Your task to perform on an android device: install app "Upside-Cash back on gas & food" Image 0: 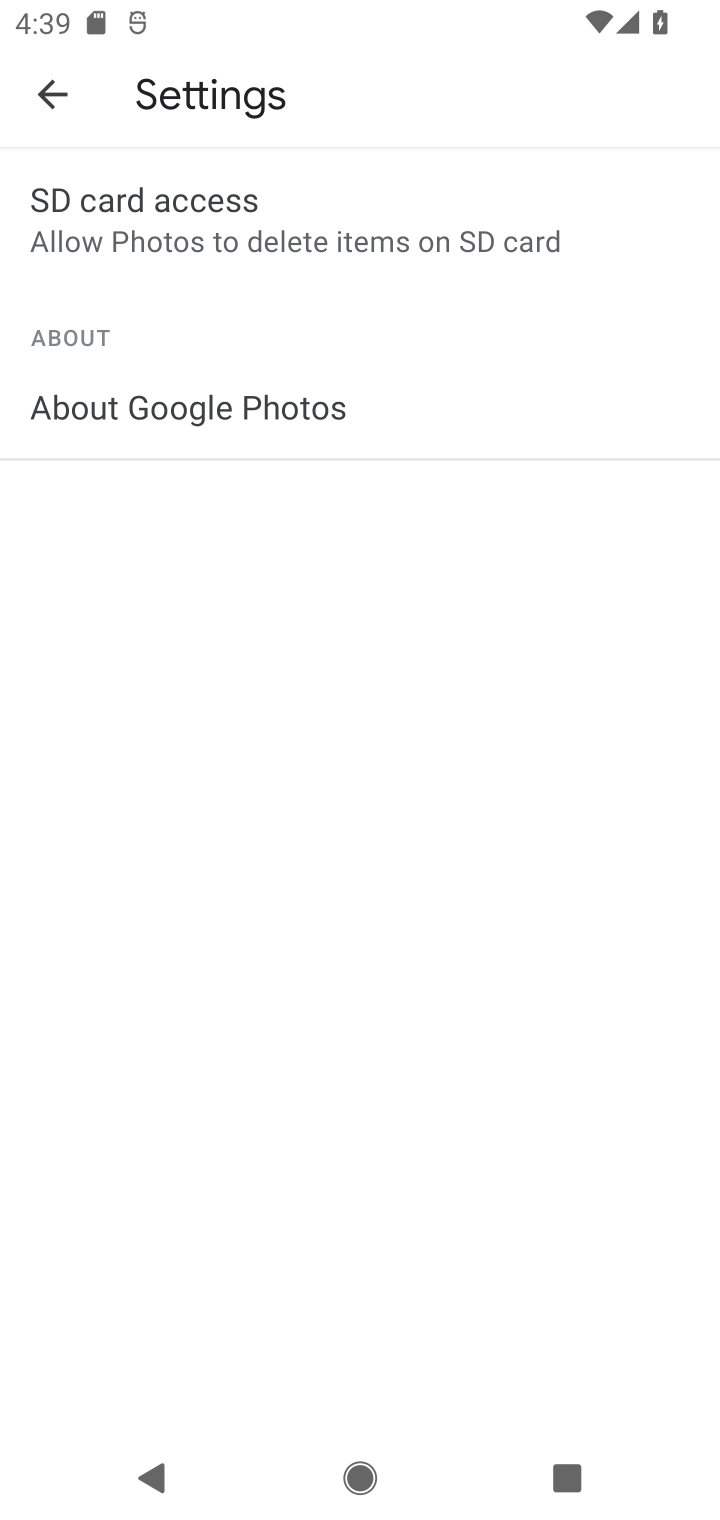
Step 0: press home button
Your task to perform on an android device: install app "Upside-Cash back on gas & food" Image 1: 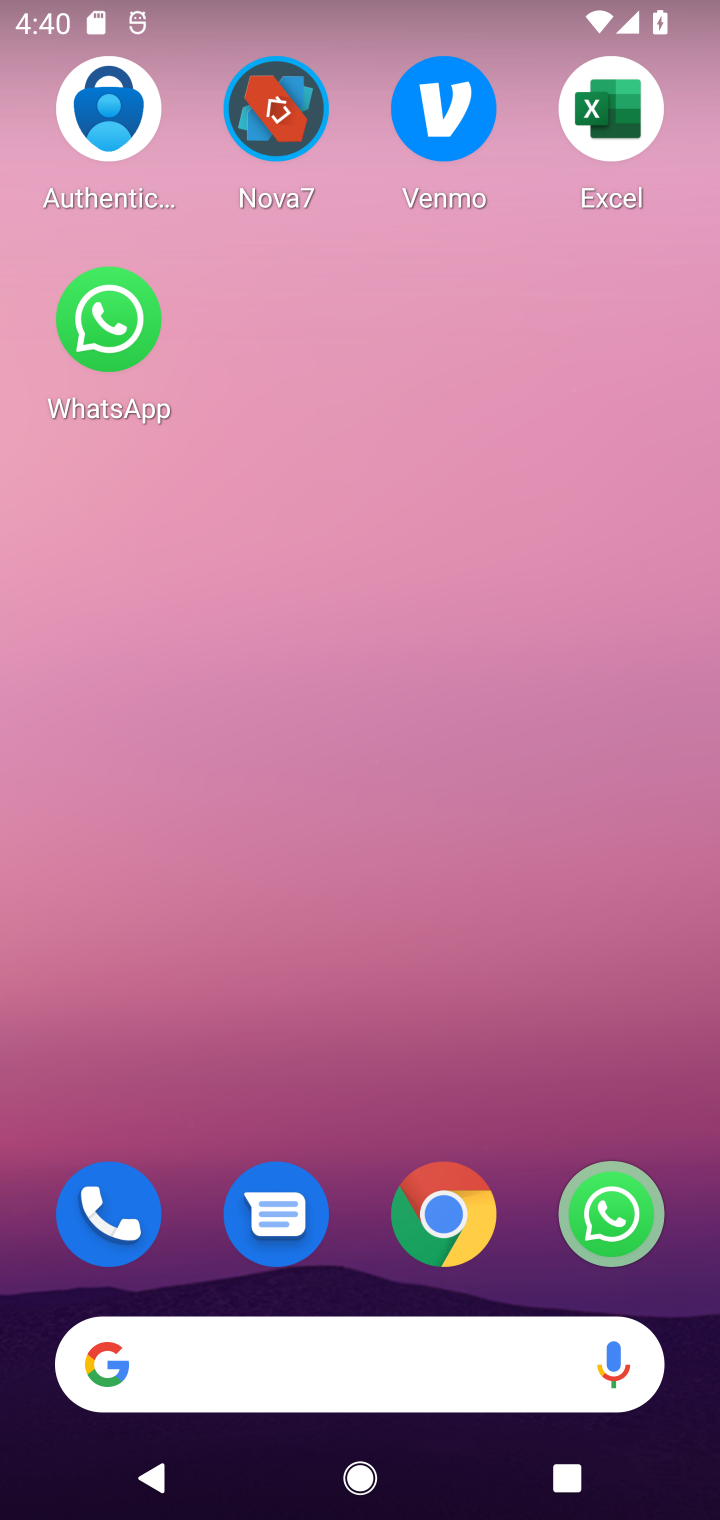
Step 1: drag from (356, 1174) to (479, 122)
Your task to perform on an android device: install app "Upside-Cash back on gas & food" Image 2: 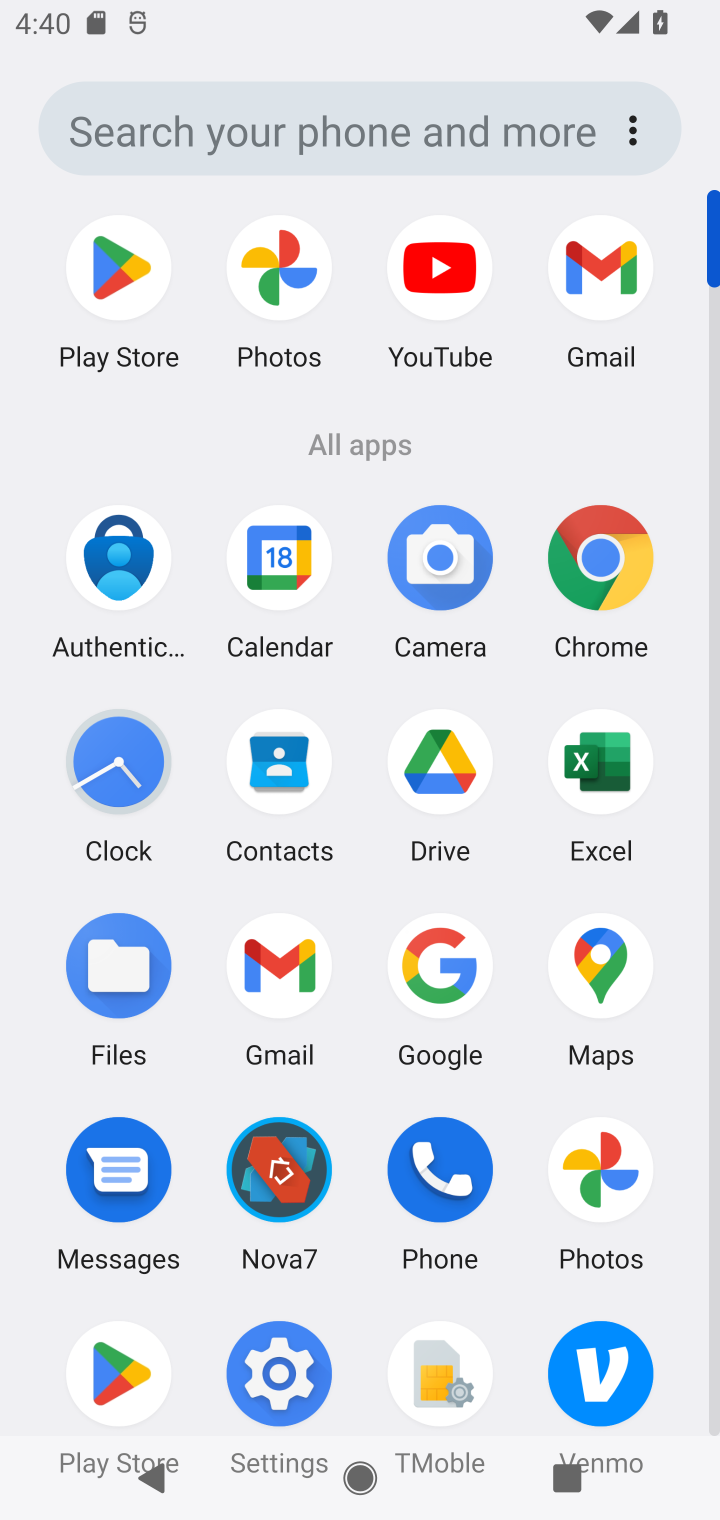
Step 2: click (107, 1364)
Your task to perform on an android device: install app "Upside-Cash back on gas & food" Image 3: 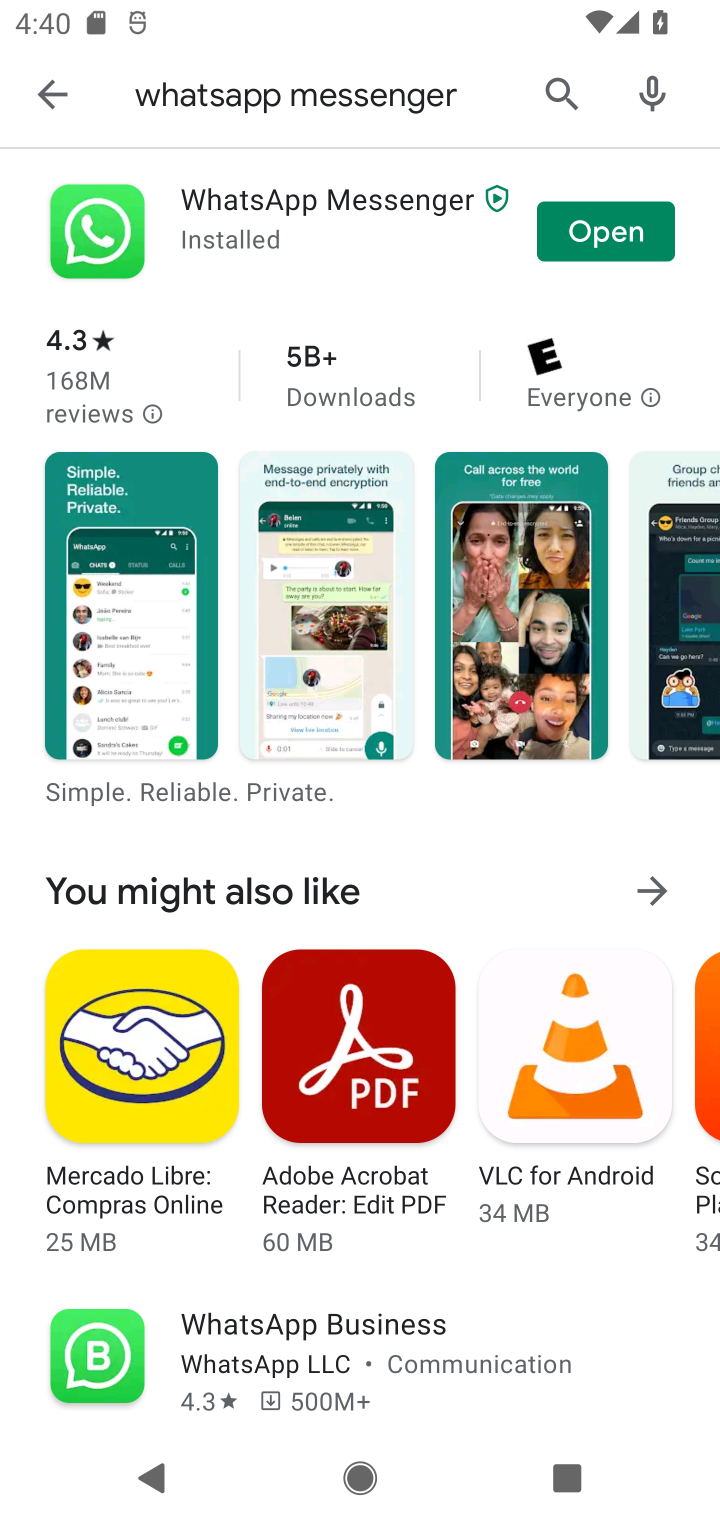
Step 3: click (265, 103)
Your task to perform on an android device: install app "Upside-Cash back on gas & food" Image 4: 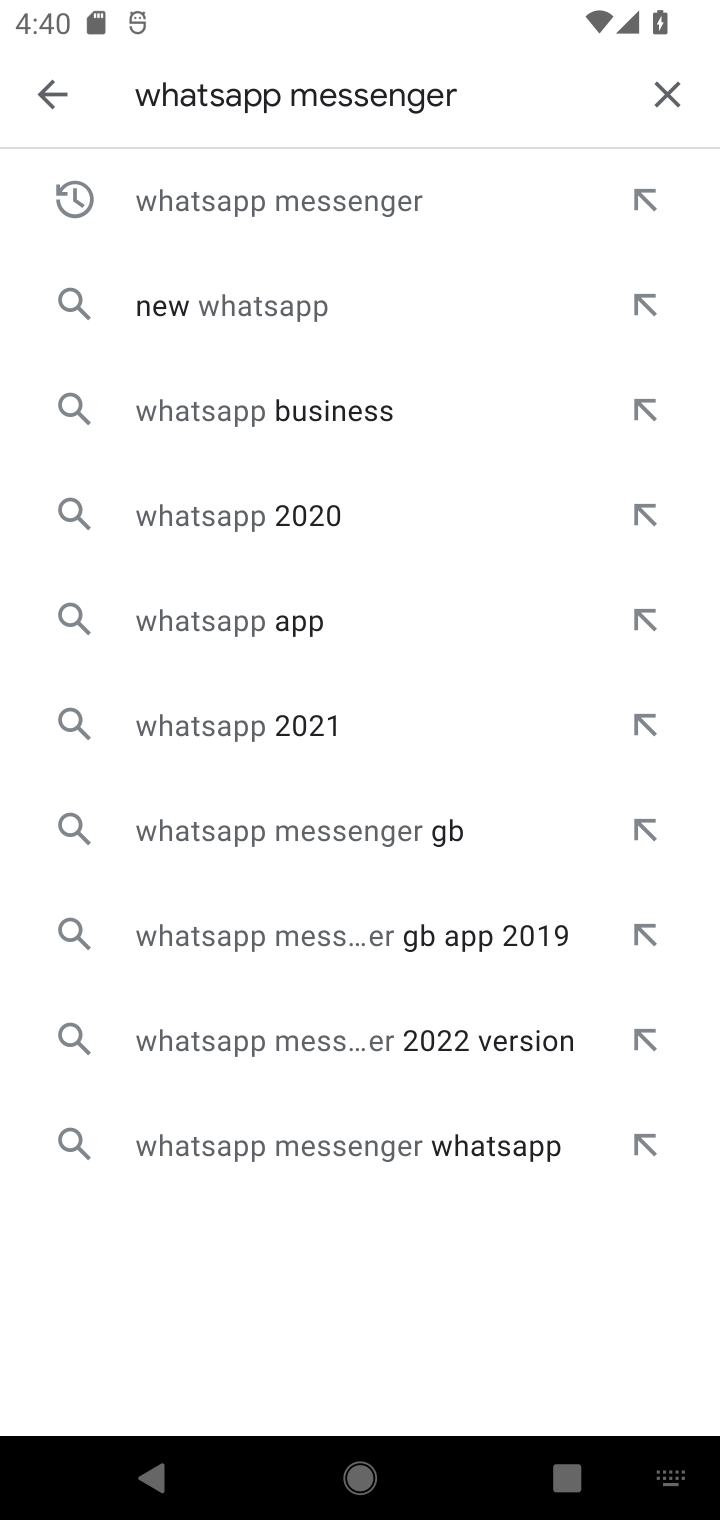
Step 4: click (665, 85)
Your task to perform on an android device: install app "Upside-Cash back on gas & food" Image 5: 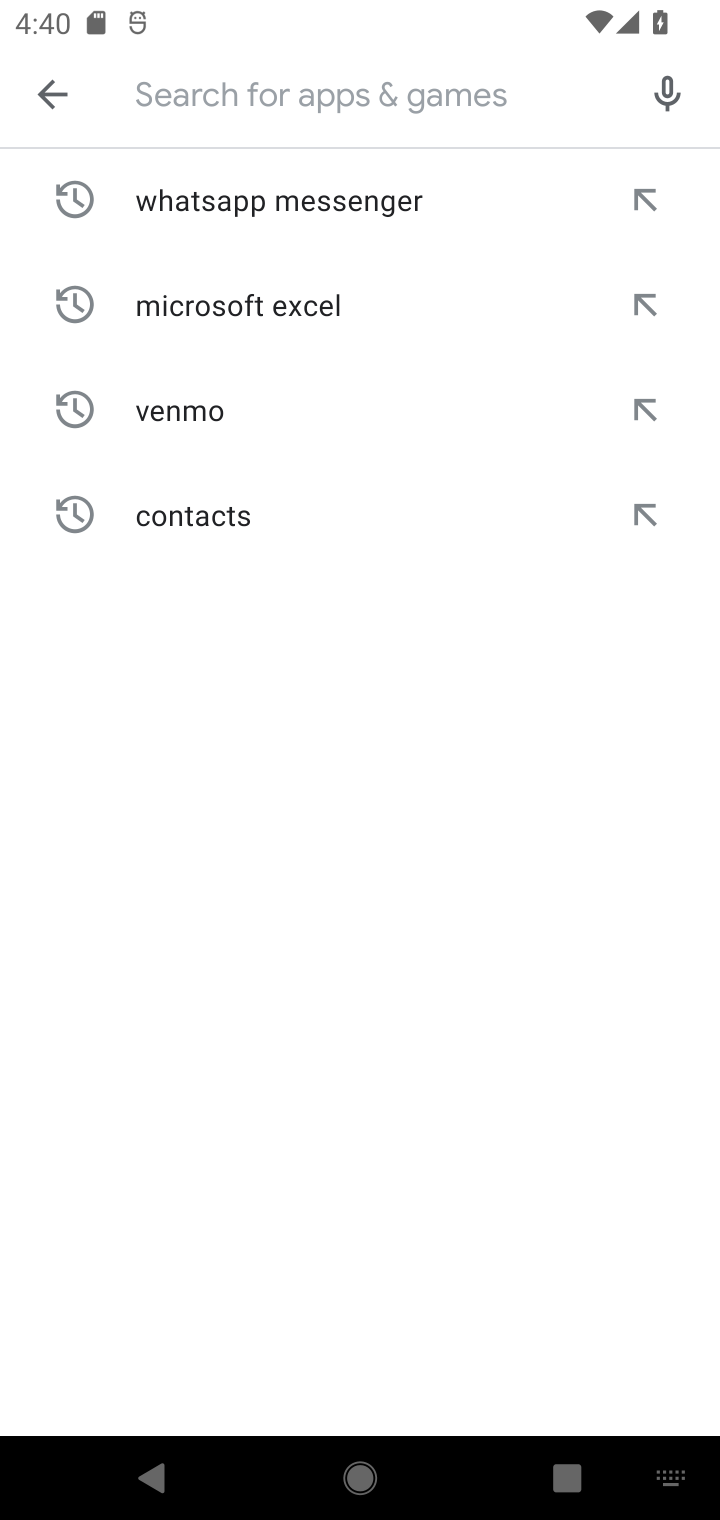
Step 5: type "upside"
Your task to perform on an android device: install app "Upside-Cash back on gas & food" Image 6: 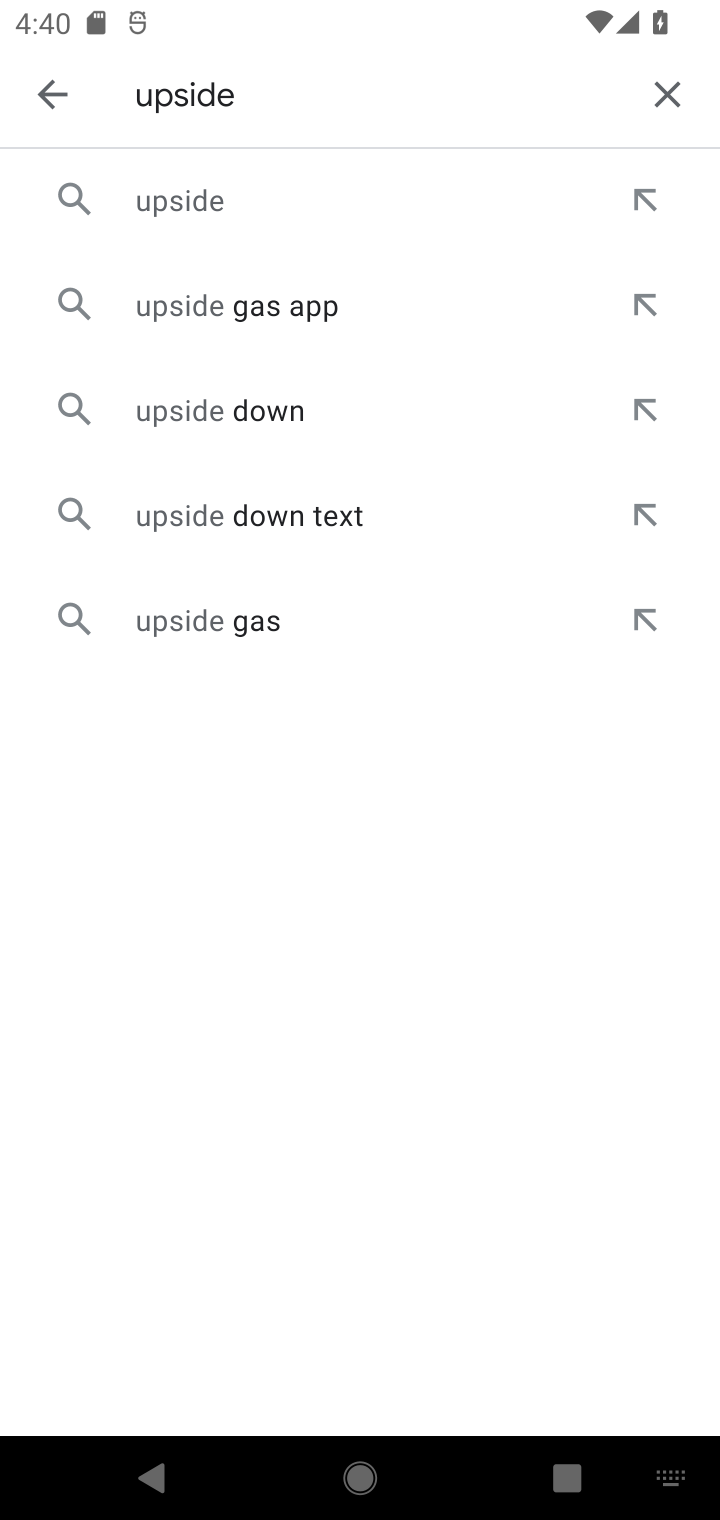
Step 6: click (251, 206)
Your task to perform on an android device: install app "Upside-Cash back on gas & food" Image 7: 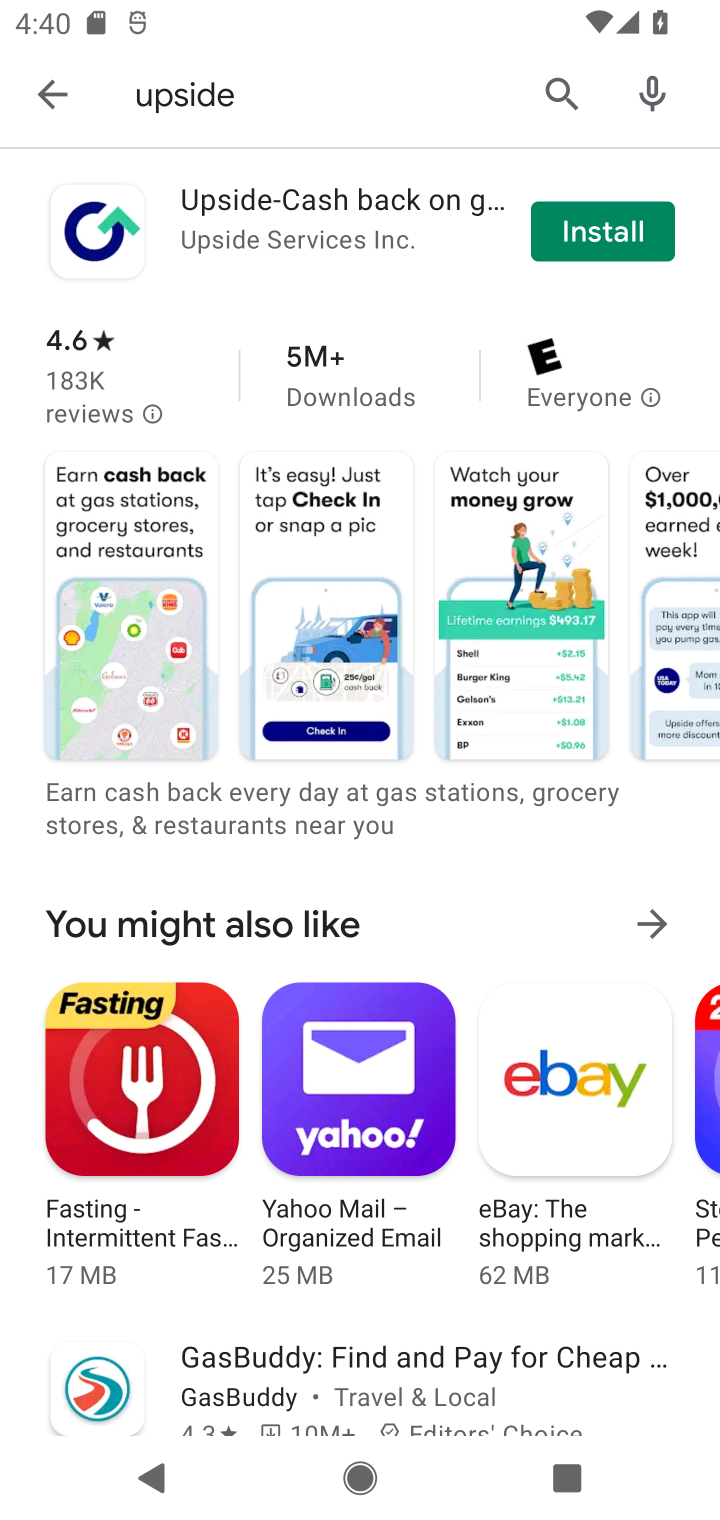
Step 7: click (599, 221)
Your task to perform on an android device: install app "Upside-Cash back on gas & food" Image 8: 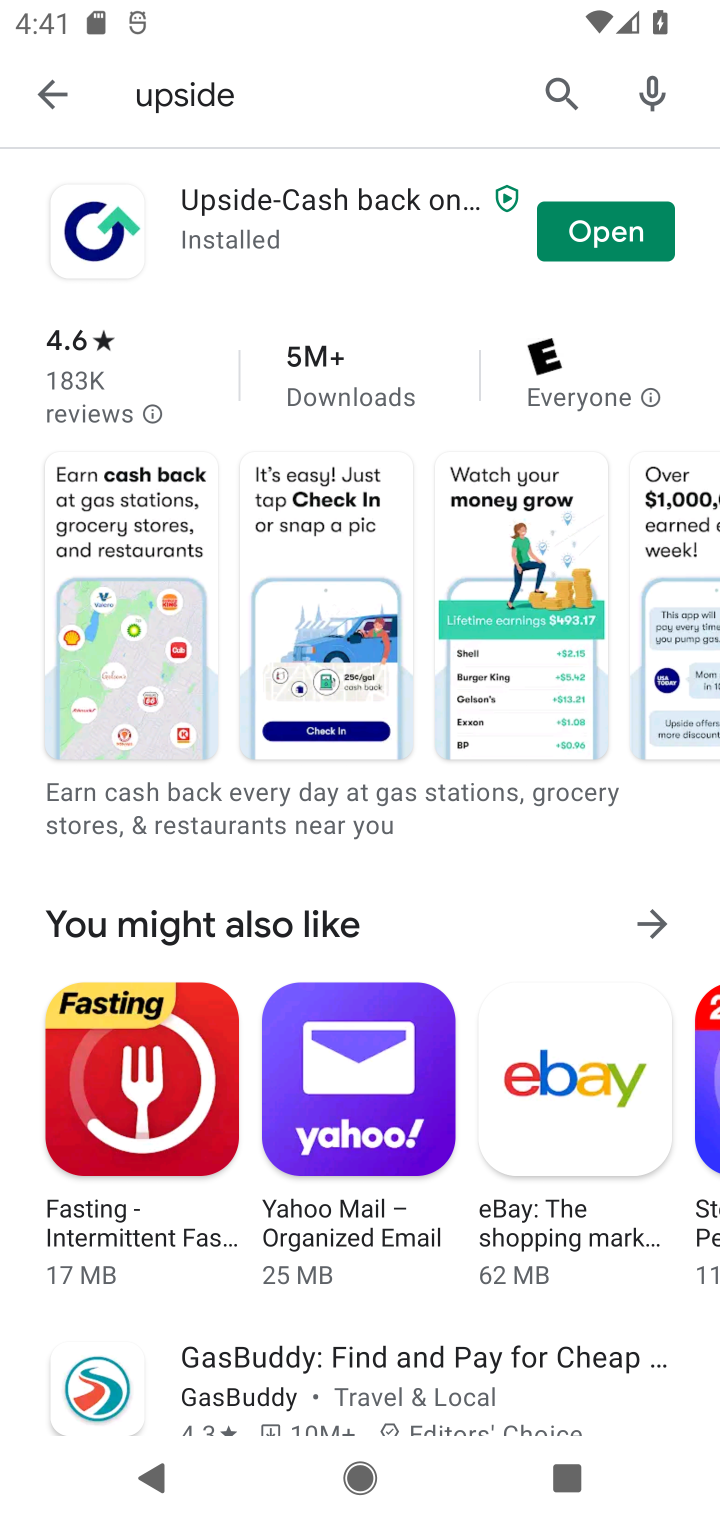
Step 8: task complete